Your task to perform on an android device: Toggle the flashlight Image 0: 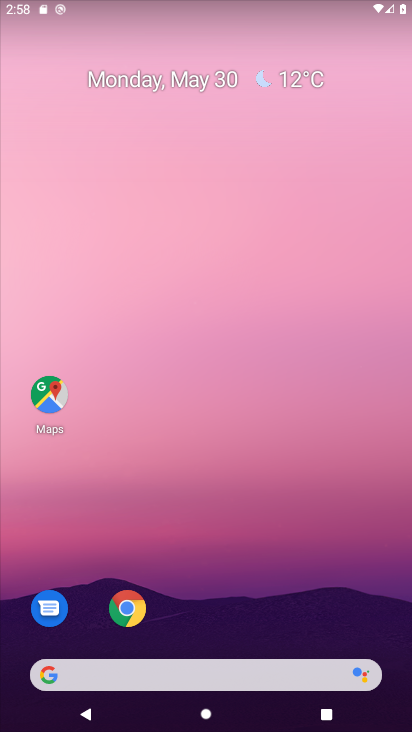
Step 0: drag from (248, 5) to (226, 590)
Your task to perform on an android device: Toggle the flashlight Image 1: 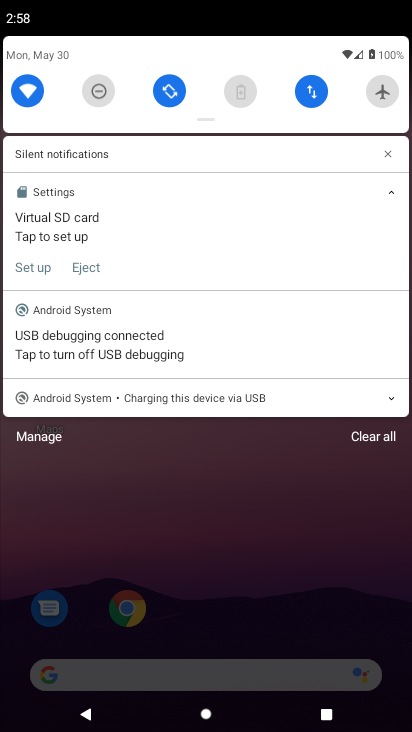
Step 1: task complete